Your task to perform on an android device: Open Google Chrome Image 0: 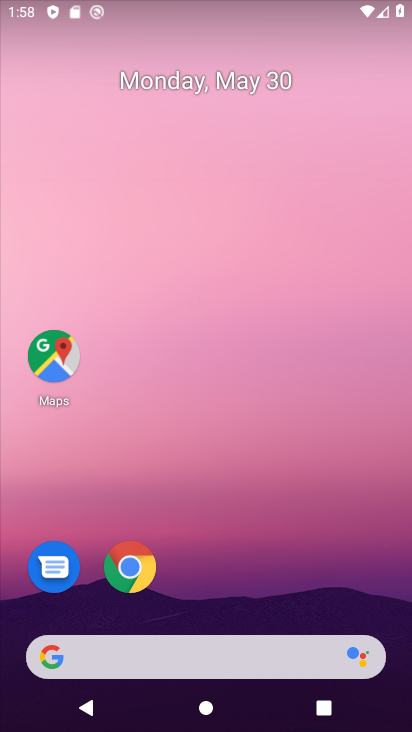
Step 0: click (131, 550)
Your task to perform on an android device: Open Google Chrome Image 1: 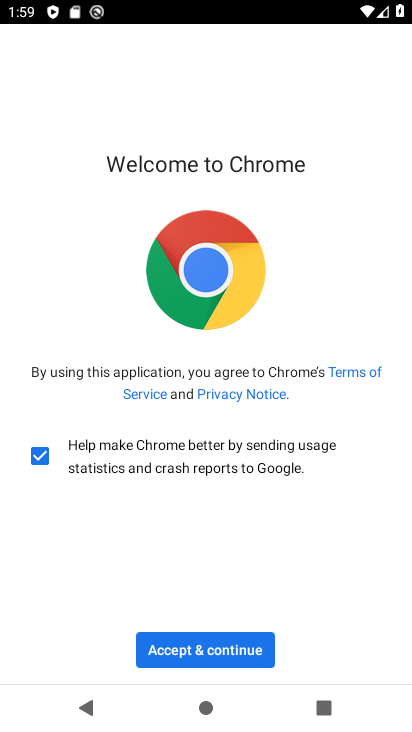
Step 1: click (233, 646)
Your task to perform on an android device: Open Google Chrome Image 2: 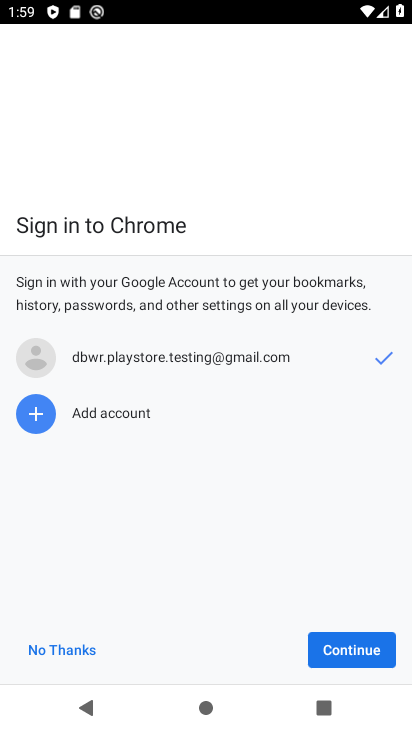
Step 2: click (340, 638)
Your task to perform on an android device: Open Google Chrome Image 3: 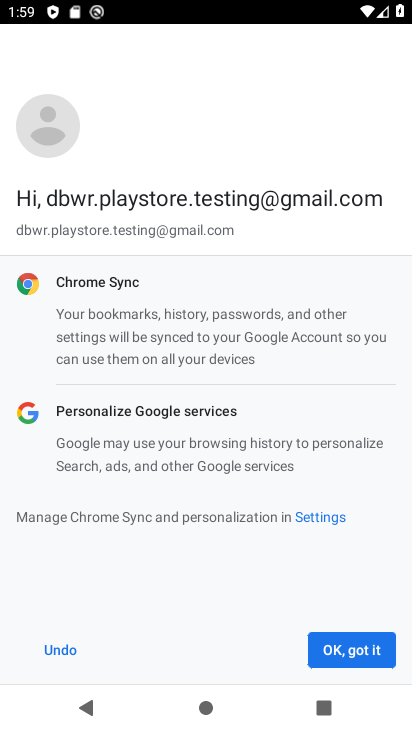
Step 3: click (341, 653)
Your task to perform on an android device: Open Google Chrome Image 4: 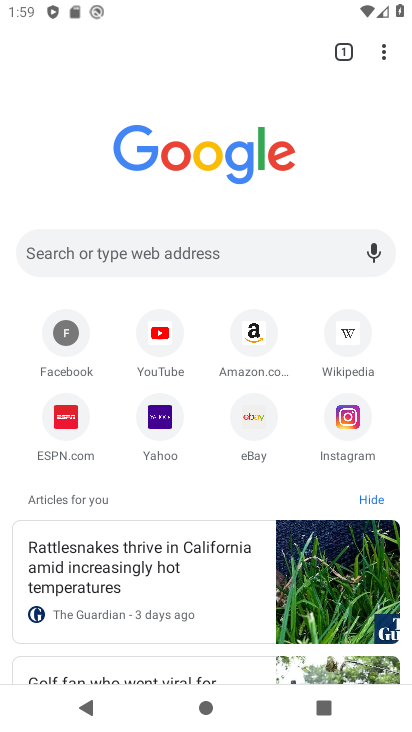
Step 4: task complete